Your task to perform on an android device: open a bookmark in the chrome app Image 0: 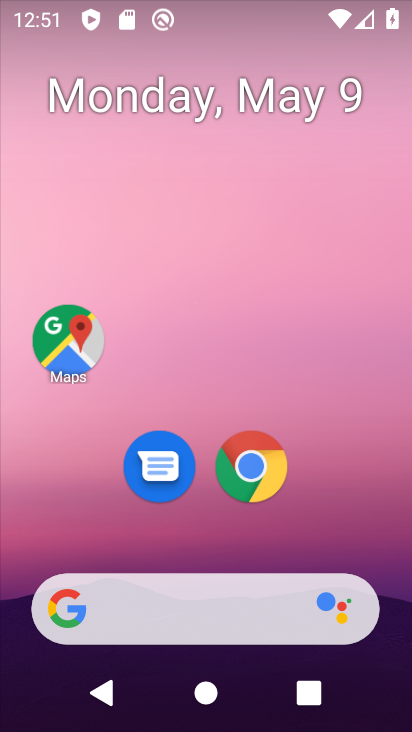
Step 0: drag from (258, 599) to (269, 232)
Your task to perform on an android device: open a bookmark in the chrome app Image 1: 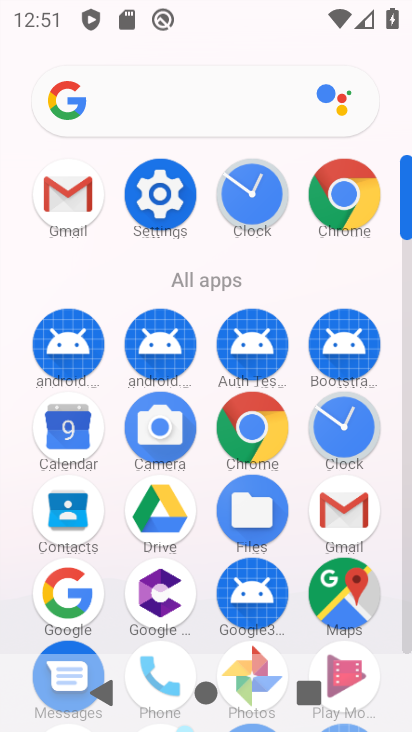
Step 1: click (356, 202)
Your task to perform on an android device: open a bookmark in the chrome app Image 2: 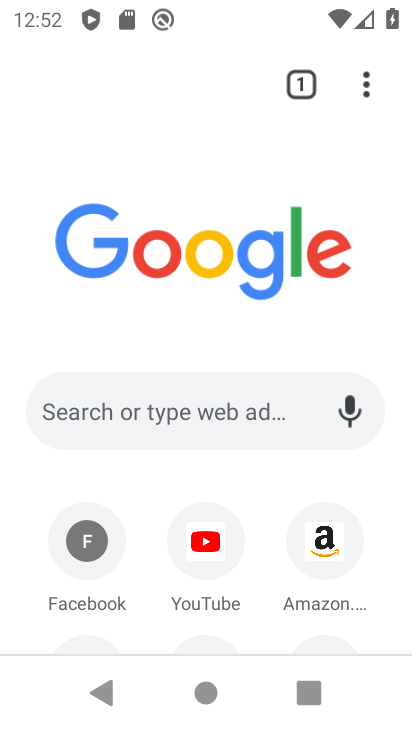
Step 2: click (362, 69)
Your task to perform on an android device: open a bookmark in the chrome app Image 3: 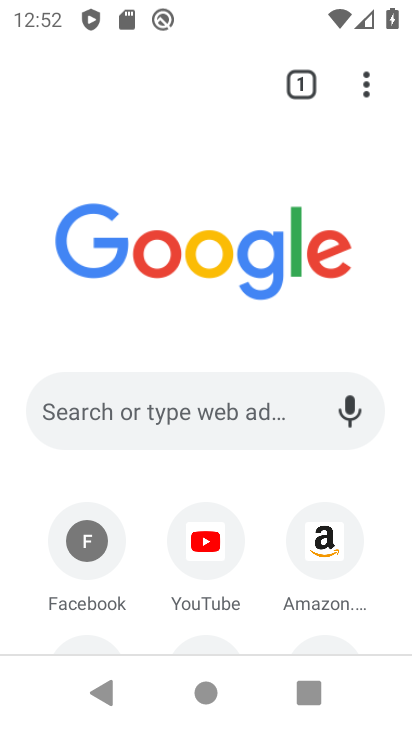
Step 3: click (360, 92)
Your task to perform on an android device: open a bookmark in the chrome app Image 4: 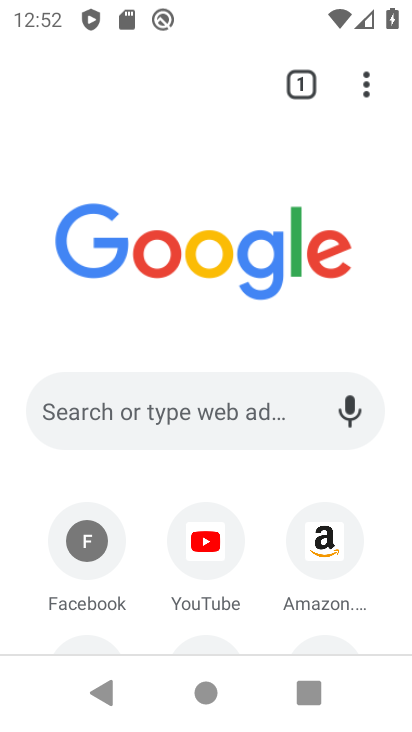
Step 4: click (384, 108)
Your task to perform on an android device: open a bookmark in the chrome app Image 5: 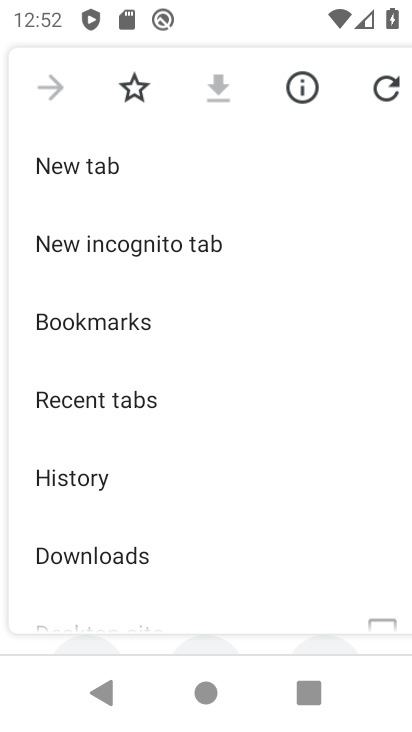
Step 5: drag from (235, 458) to (235, 240)
Your task to perform on an android device: open a bookmark in the chrome app Image 6: 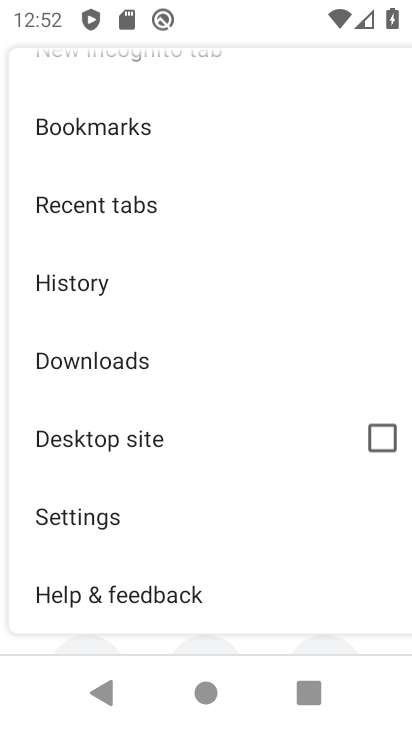
Step 6: click (142, 130)
Your task to perform on an android device: open a bookmark in the chrome app Image 7: 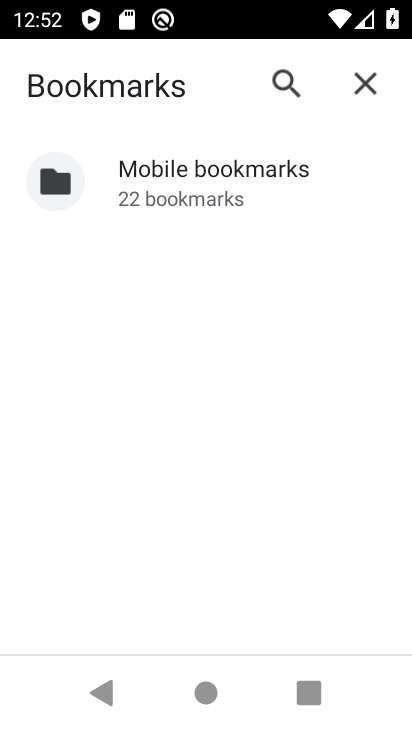
Step 7: click (179, 191)
Your task to perform on an android device: open a bookmark in the chrome app Image 8: 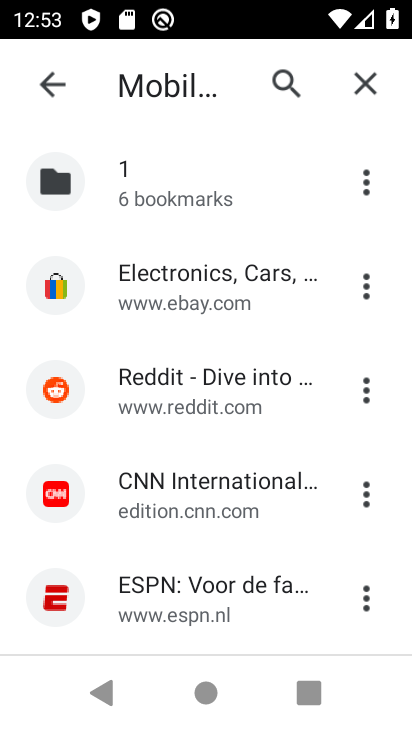
Step 8: click (197, 488)
Your task to perform on an android device: open a bookmark in the chrome app Image 9: 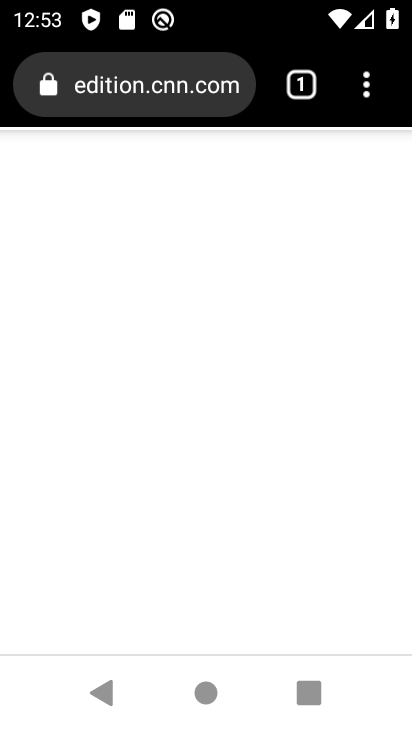
Step 9: task complete